Your task to perform on an android device: Open network settings Image 0: 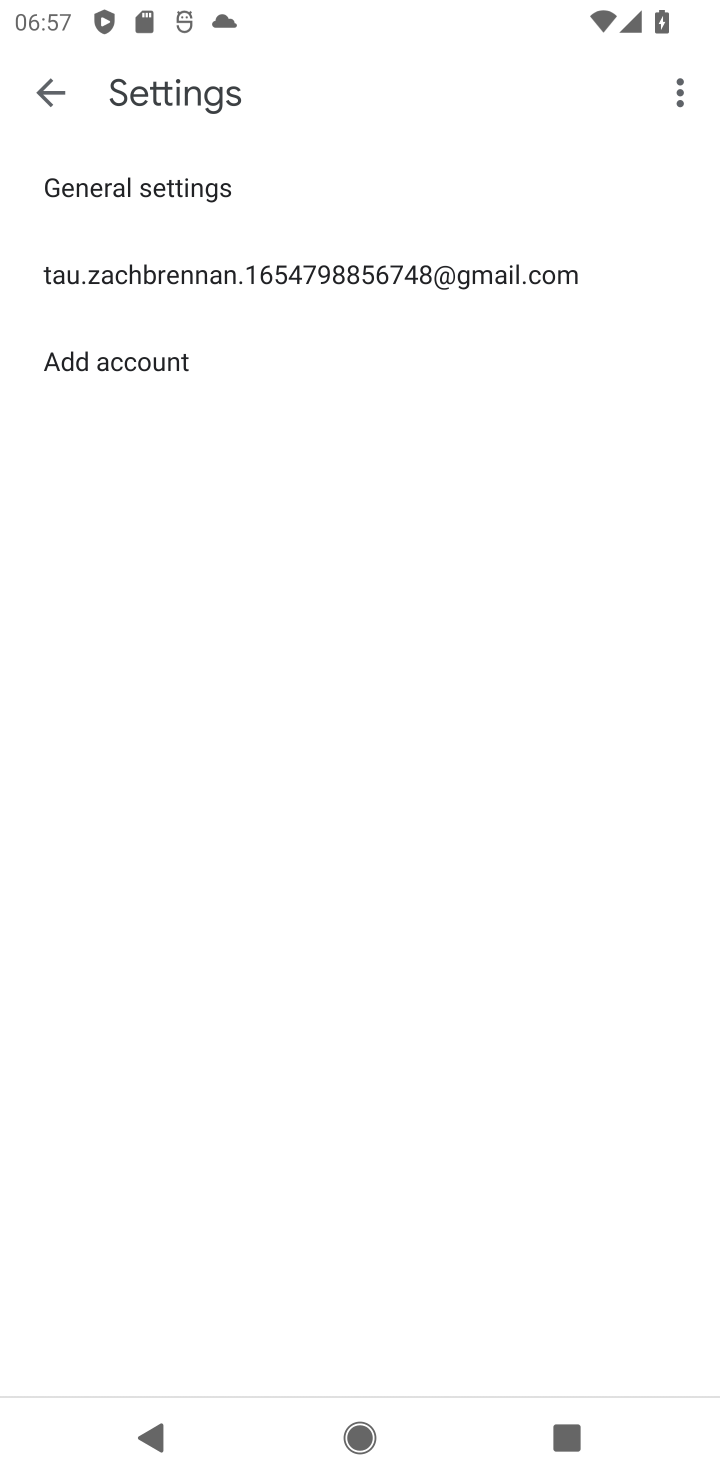
Step 0: press home button
Your task to perform on an android device: Open network settings Image 1: 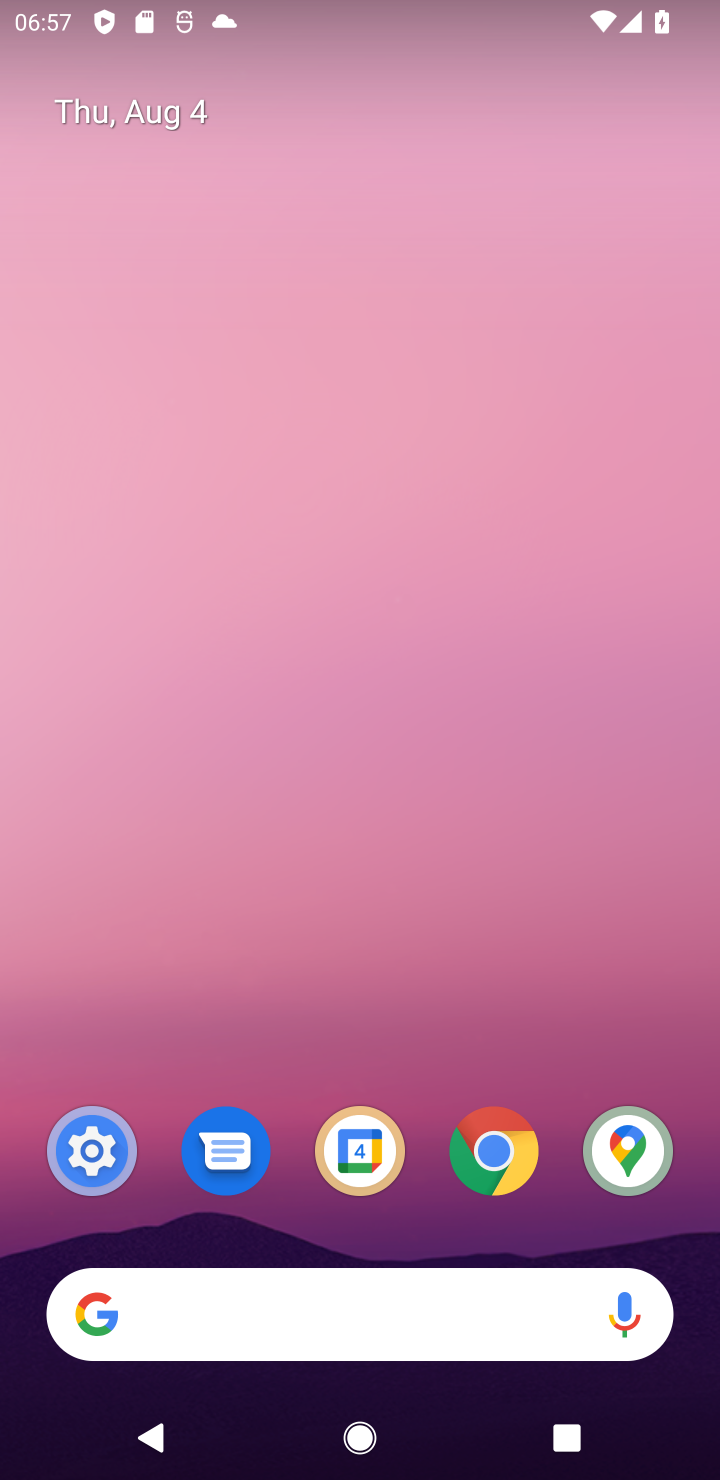
Step 1: drag from (393, 1276) to (369, 10)
Your task to perform on an android device: Open network settings Image 2: 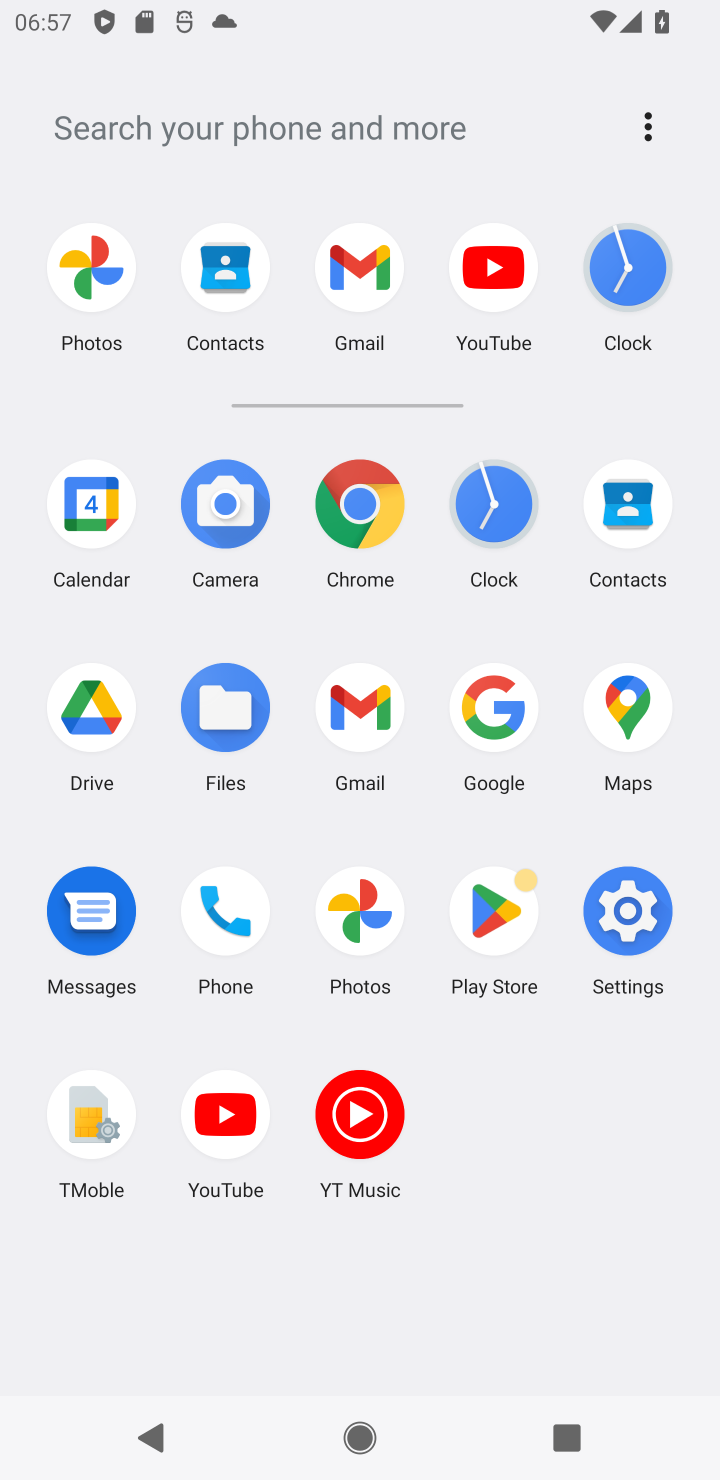
Step 2: click (621, 954)
Your task to perform on an android device: Open network settings Image 3: 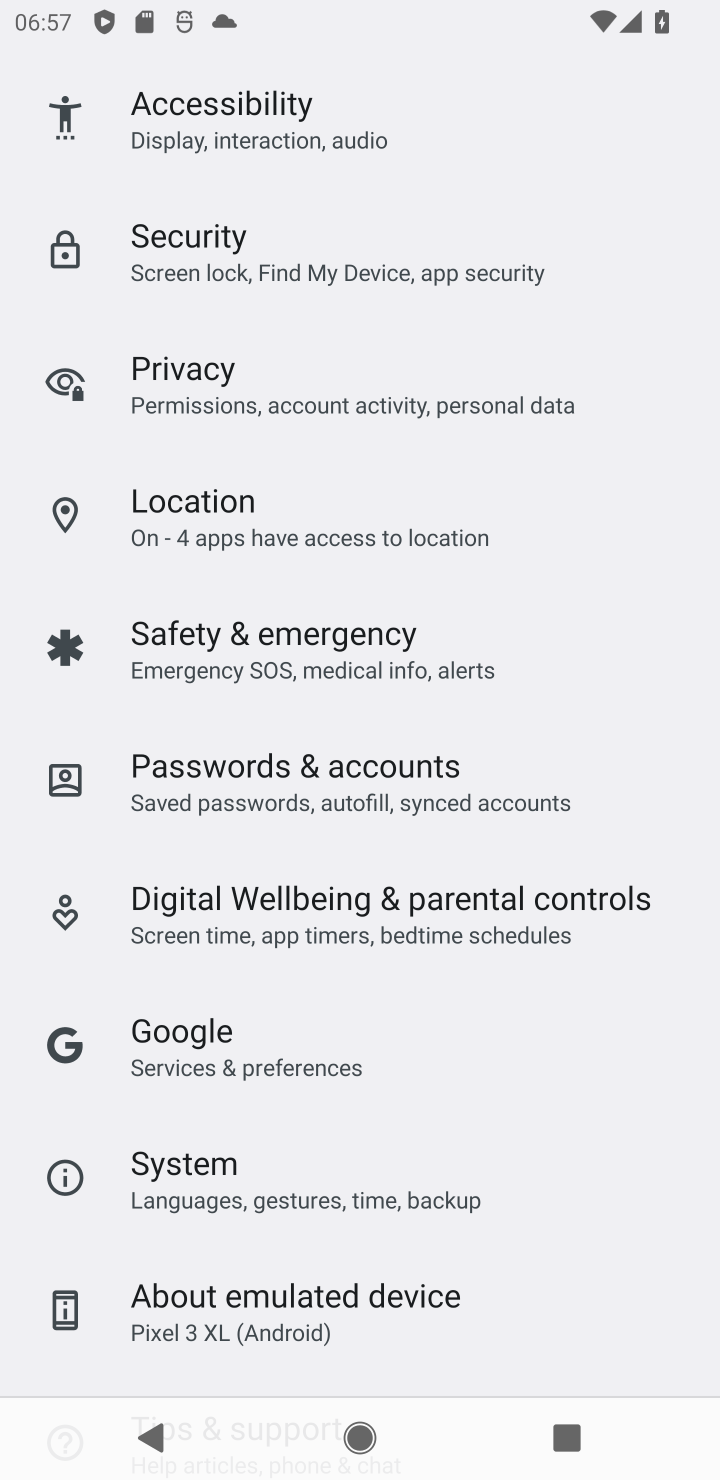
Step 3: drag from (409, 310) to (427, 1400)
Your task to perform on an android device: Open network settings Image 4: 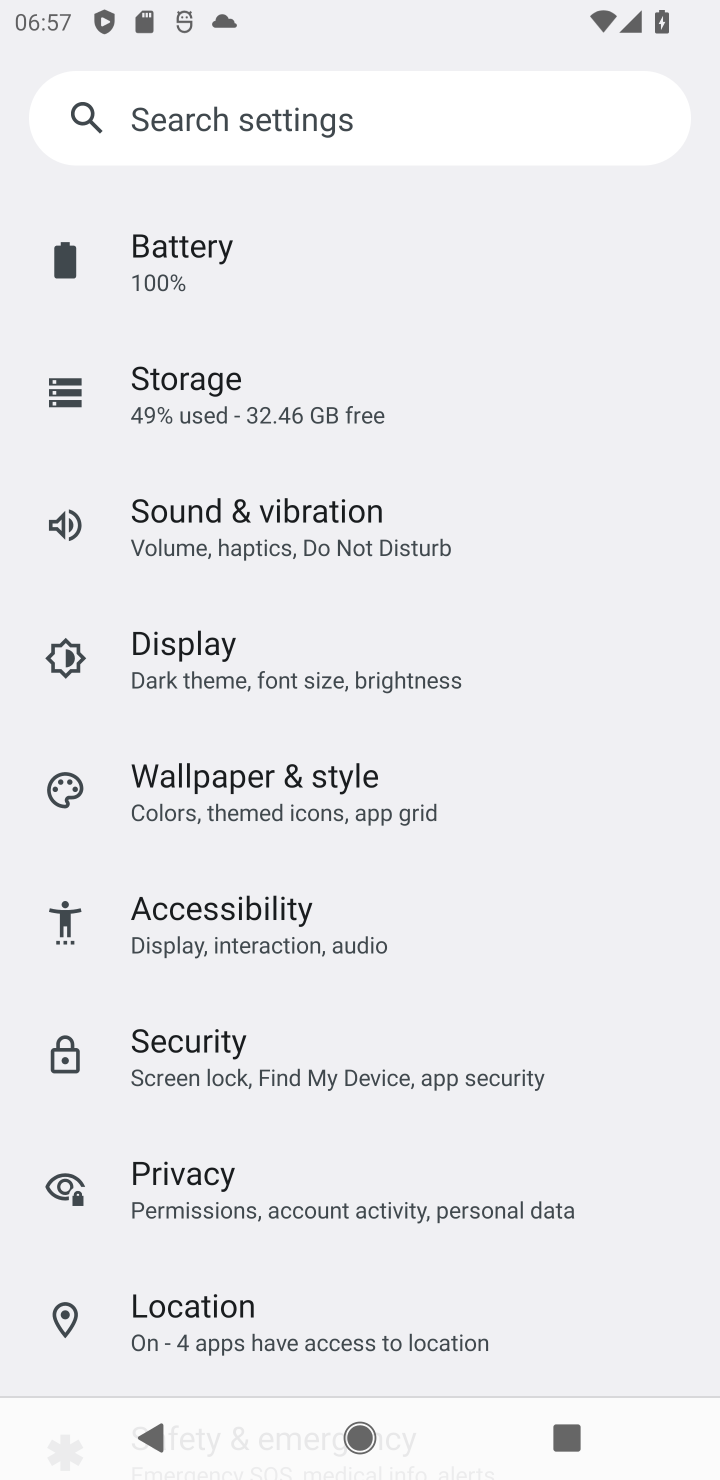
Step 4: drag from (298, 339) to (457, 1477)
Your task to perform on an android device: Open network settings Image 5: 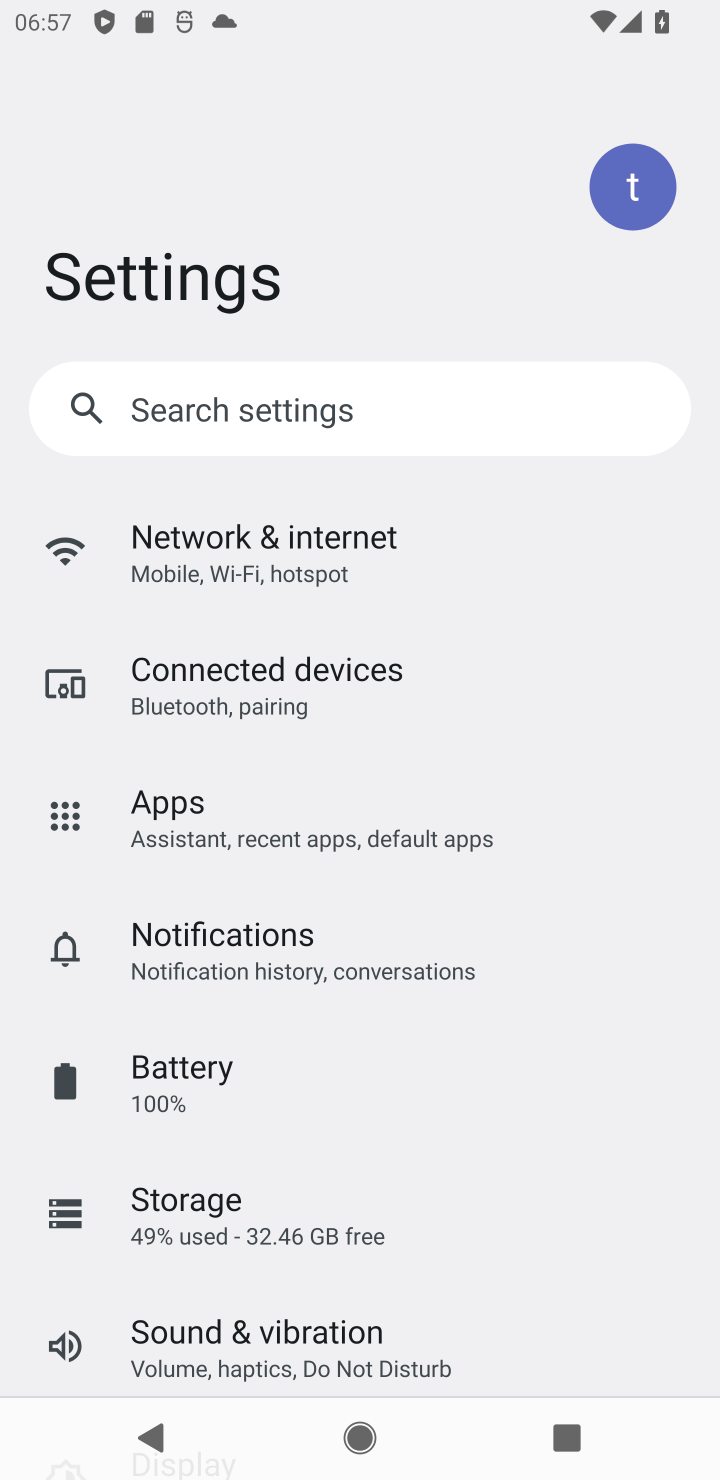
Step 5: click (281, 563)
Your task to perform on an android device: Open network settings Image 6: 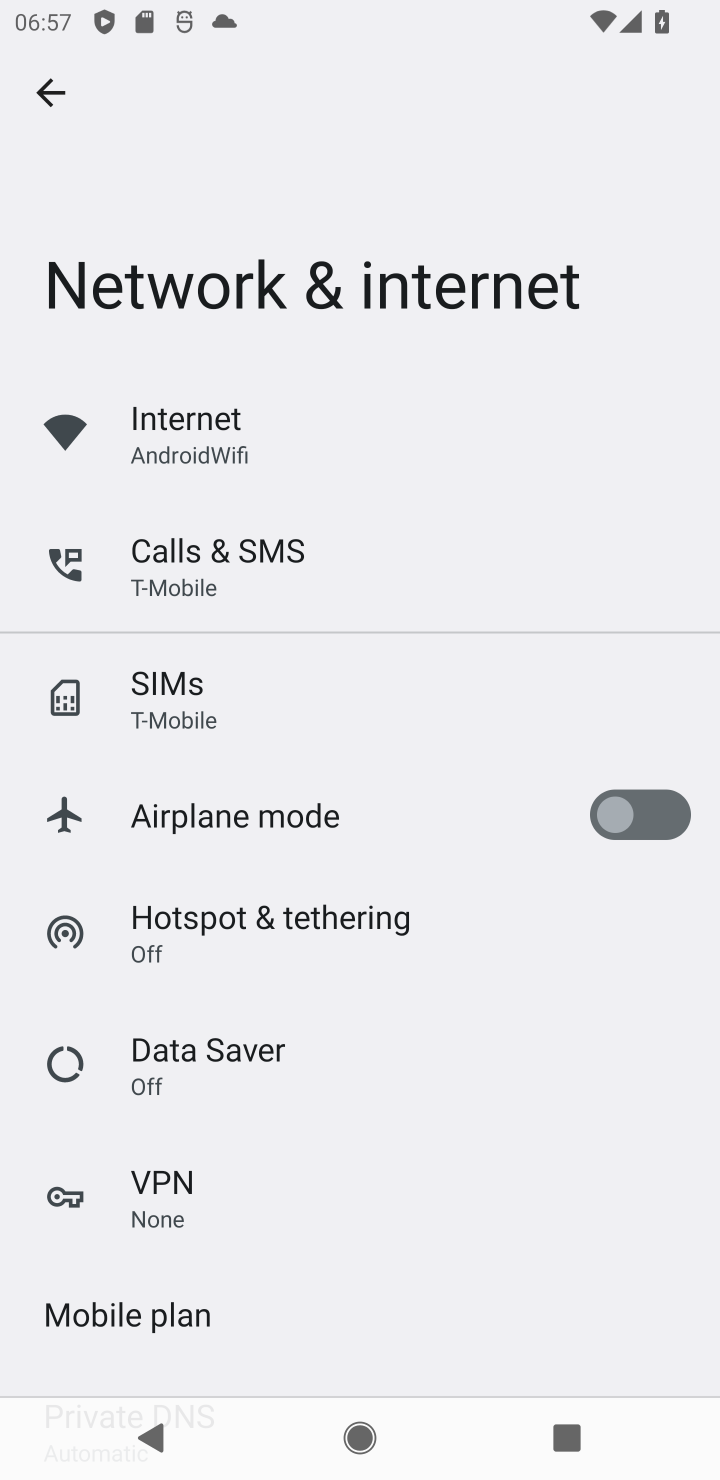
Step 6: task complete